Your task to perform on an android device: What is the news today? Image 0: 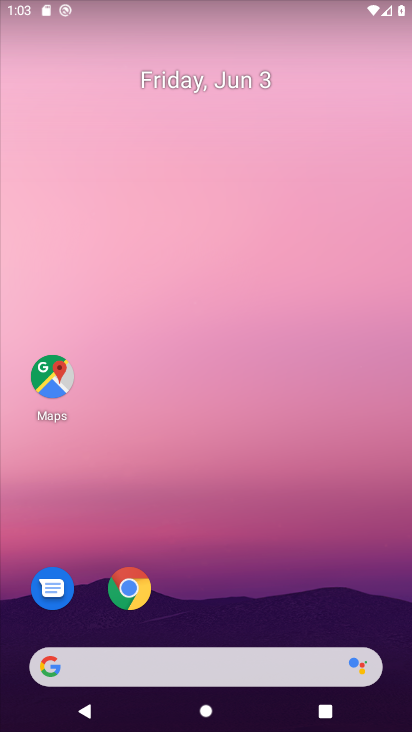
Step 0: drag from (237, 624) to (141, 127)
Your task to perform on an android device: What is the news today? Image 1: 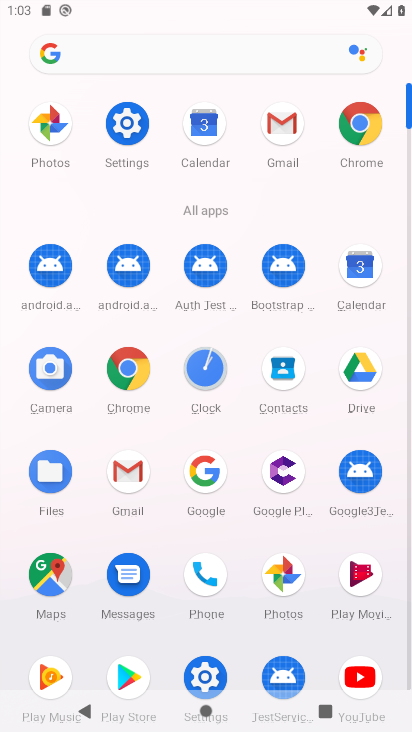
Step 1: click (222, 53)
Your task to perform on an android device: What is the news today? Image 2: 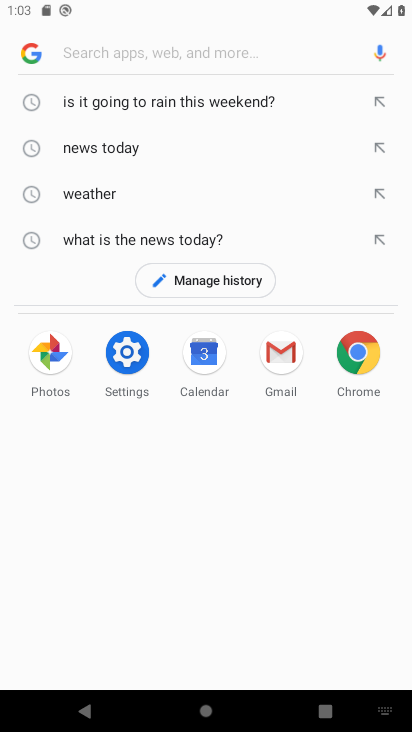
Step 2: click (248, 239)
Your task to perform on an android device: What is the news today? Image 3: 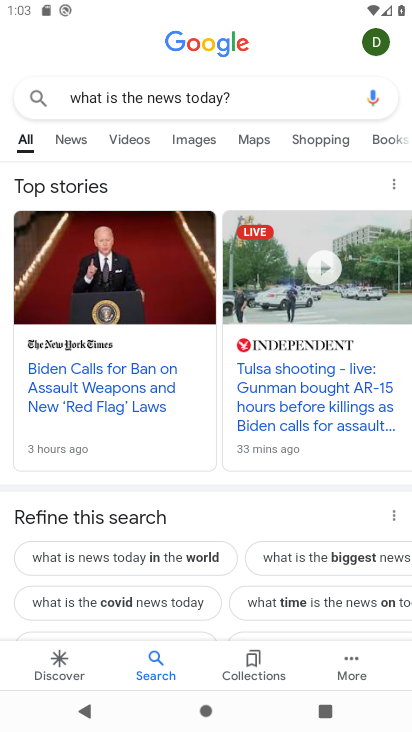
Step 3: task complete